Your task to perform on an android device: Go to CNN.com Image 0: 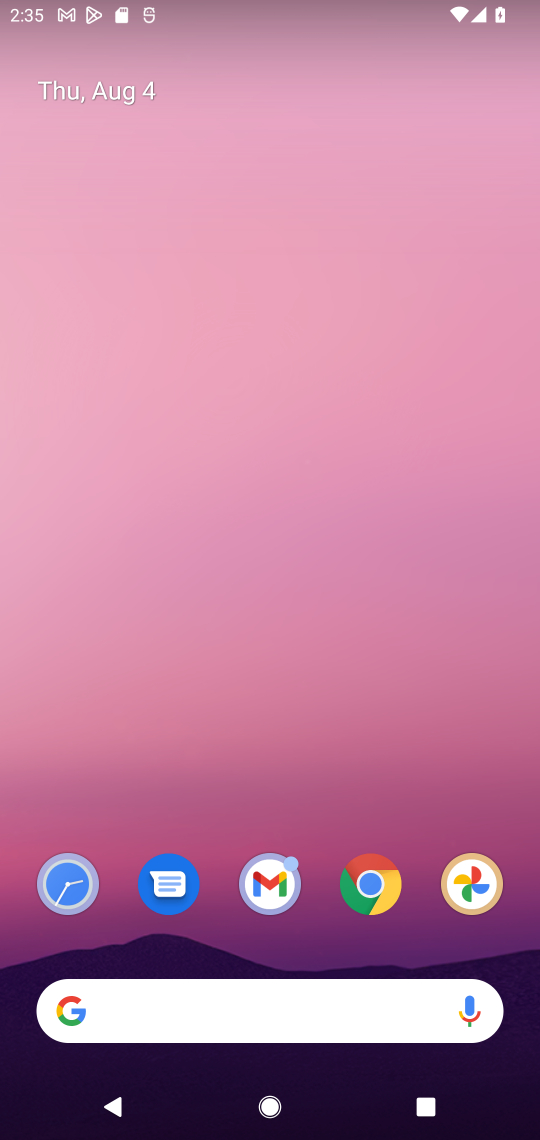
Step 0: drag from (336, 969) to (356, 146)
Your task to perform on an android device: Go to CNN.com Image 1: 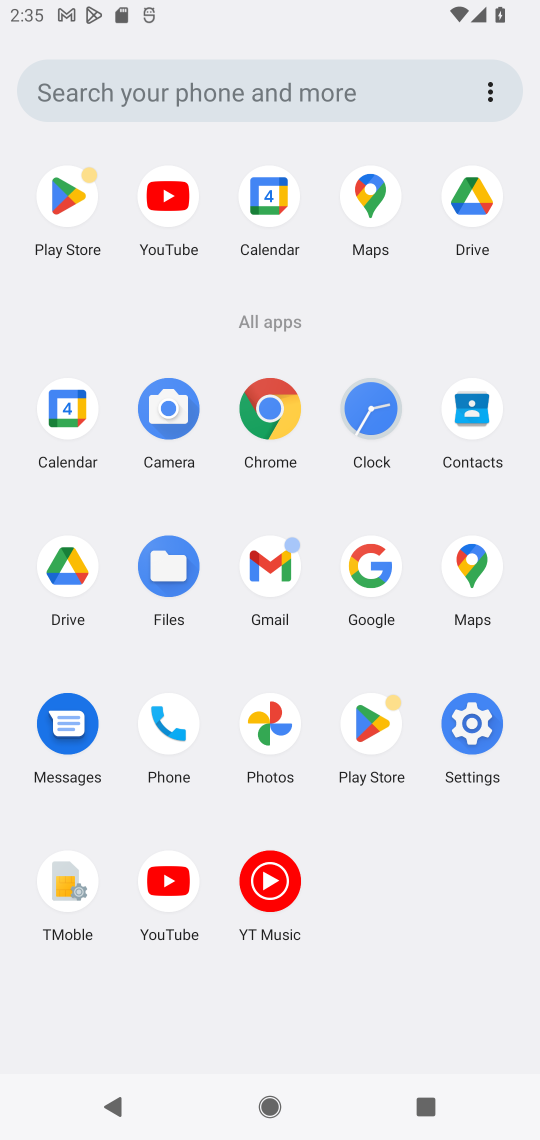
Step 1: click (286, 384)
Your task to perform on an android device: Go to CNN.com Image 2: 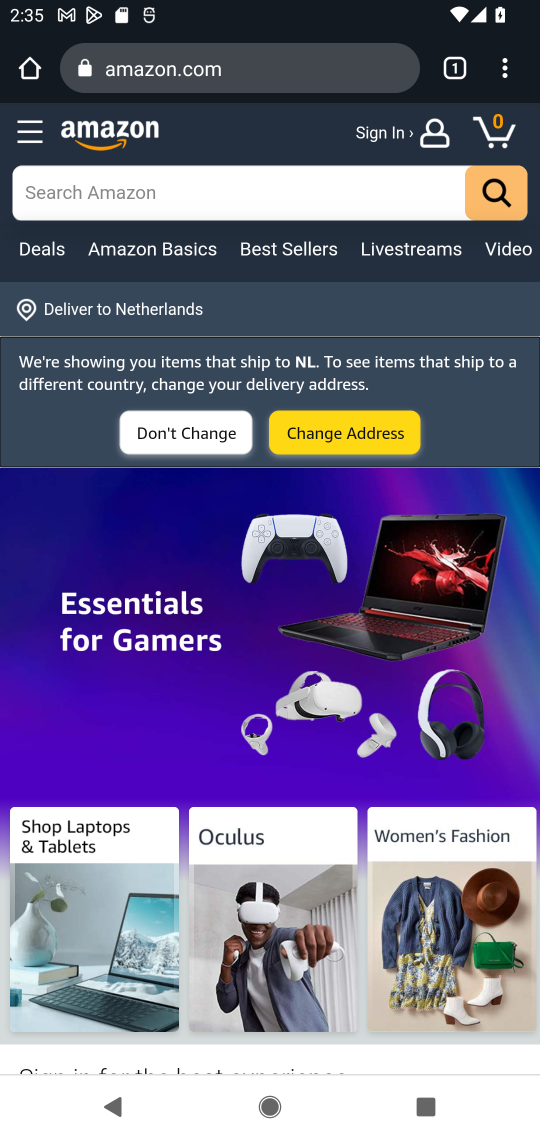
Step 2: click (330, 78)
Your task to perform on an android device: Go to CNN.com Image 3: 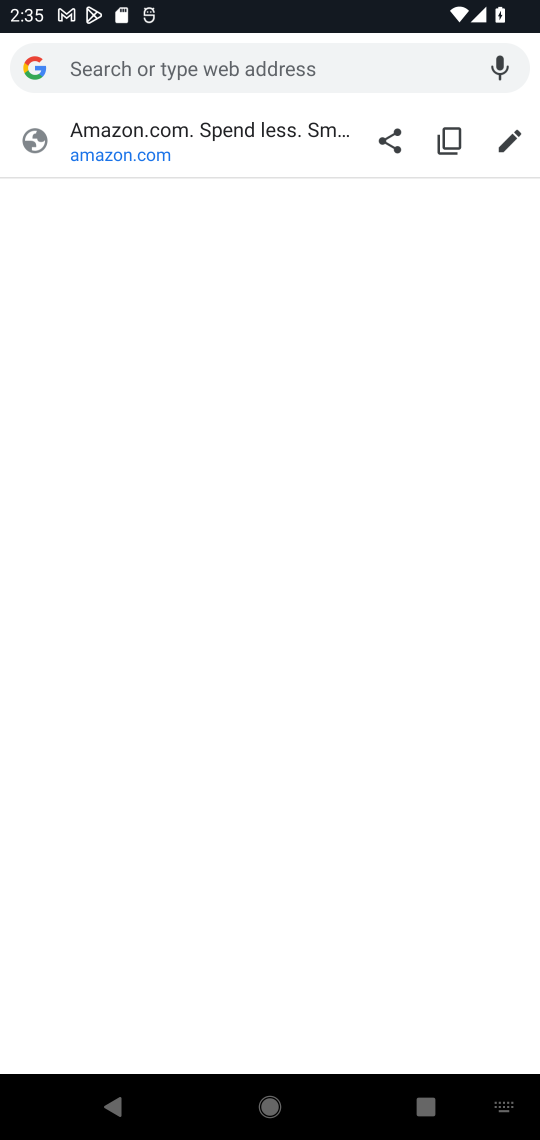
Step 3: type "cnn.com"
Your task to perform on an android device: Go to CNN.com Image 4: 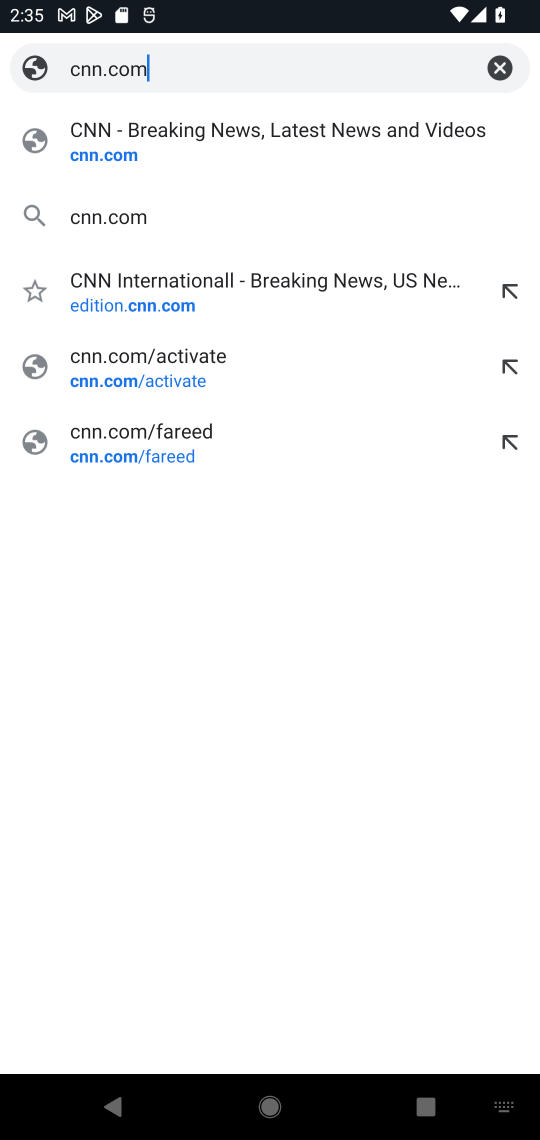
Step 4: click (96, 157)
Your task to perform on an android device: Go to CNN.com Image 5: 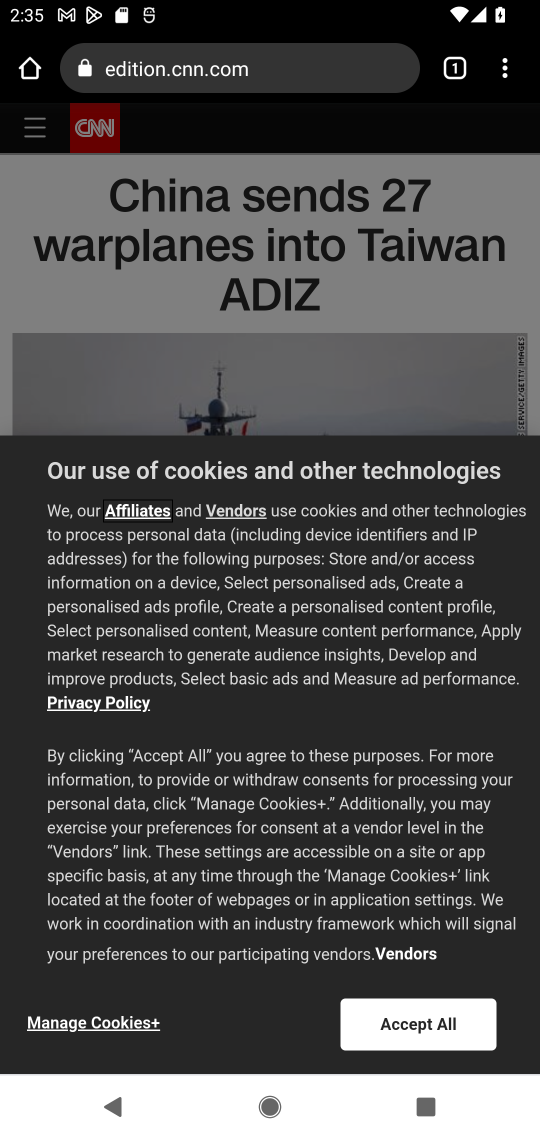
Step 5: task complete